Your task to perform on an android device: Show me the alarms in the clock app Image 0: 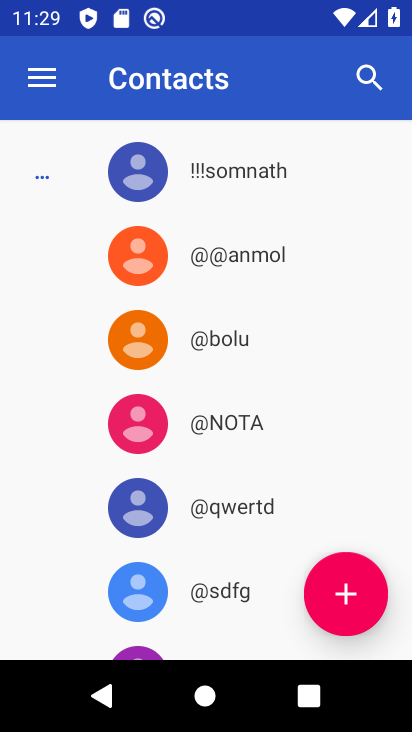
Step 0: press home button
Your task to perform on an android device: Show me the alarms in the clock app Image 1: 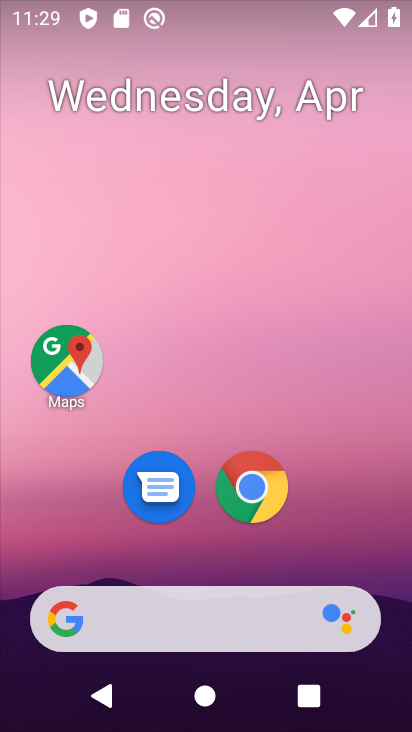
Step 1: drag from (388, 546) to (394, 8)
Your task to perform on an android device: Show me the alarms in the clock app Image 2: 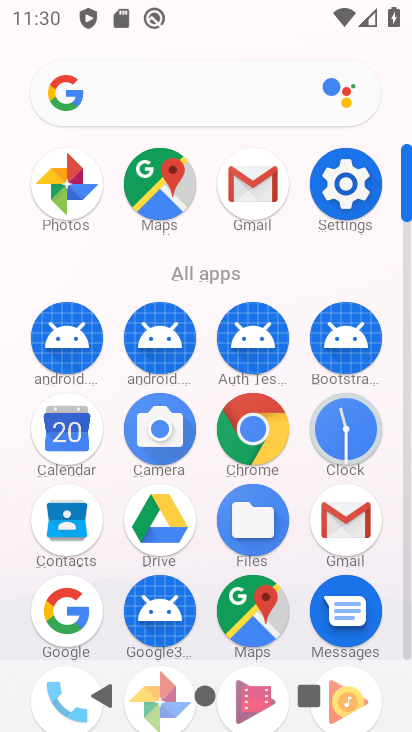
Step 2: click (335, 439)
Your task to perform on an android device: Show me the alarms in the clock app Image 3: 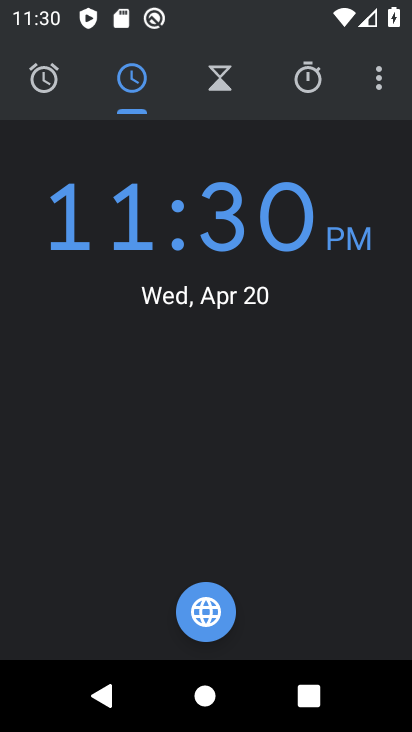
Step 3: click (48, 83)
Your task to perform on an android device: Show me the alarms in the clock app Image 4: 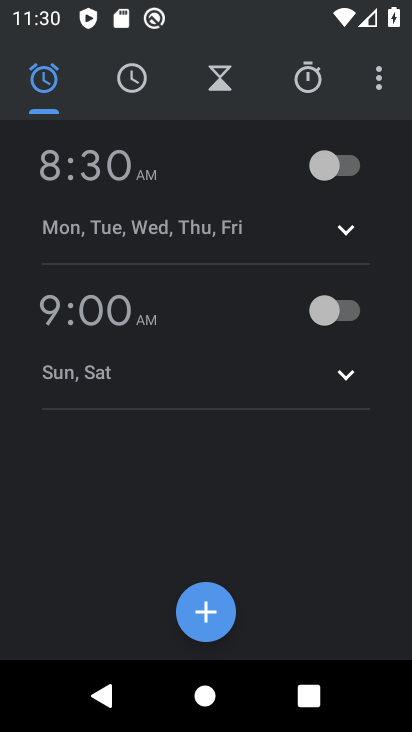
Step 4: task complete